Your task to perform on an android device: turn off improve location accuracy Image 0: 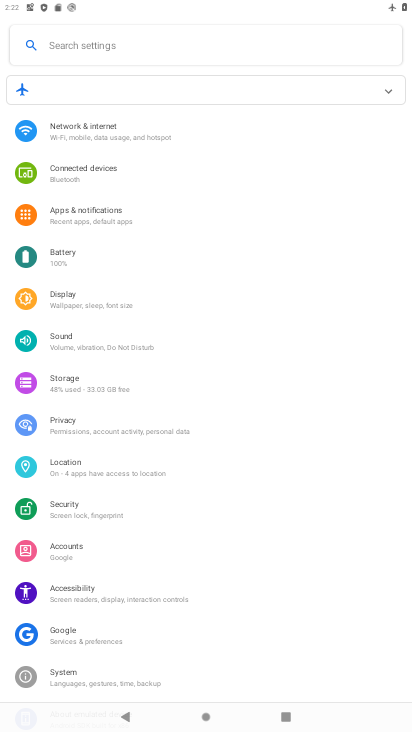
Step 0: click (98, 484)
Your task to perform on an android device: turn off improve location accuracy Image 1: 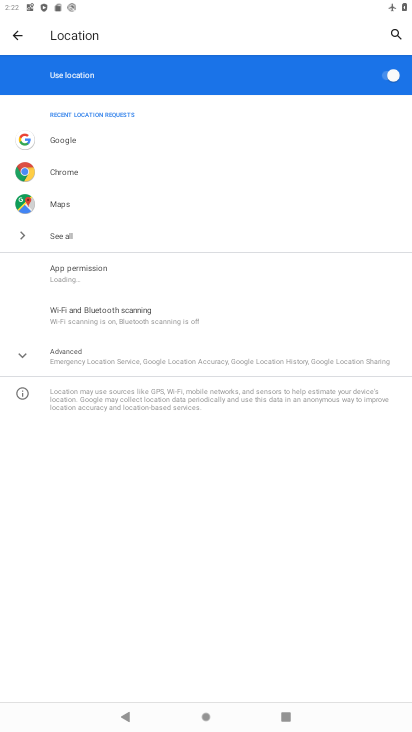
Step 1: click (98, 368)
Your task to perform on an android device: turn off improve location accuracy Image 2: 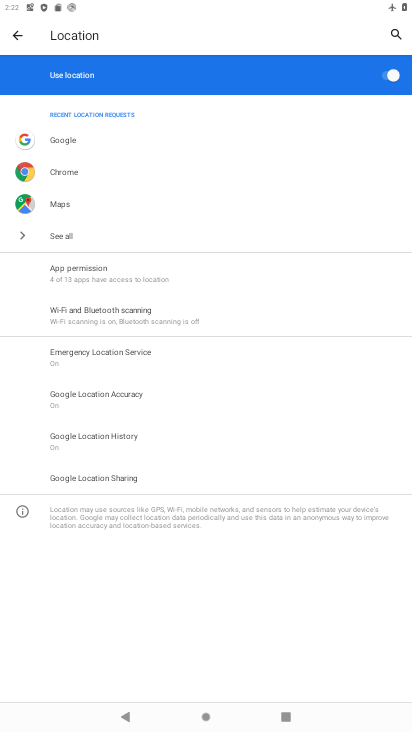
Step 2: click (102, 395)
Your task to perform on an android device: turn off improve location accuracy Image 3: 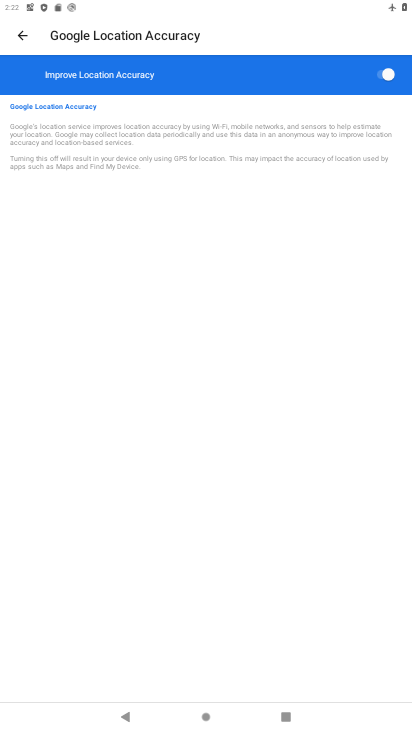
Step 3: click (384, 81)
Your task to perform on an android device: turn off improve location accuracy Image 4: 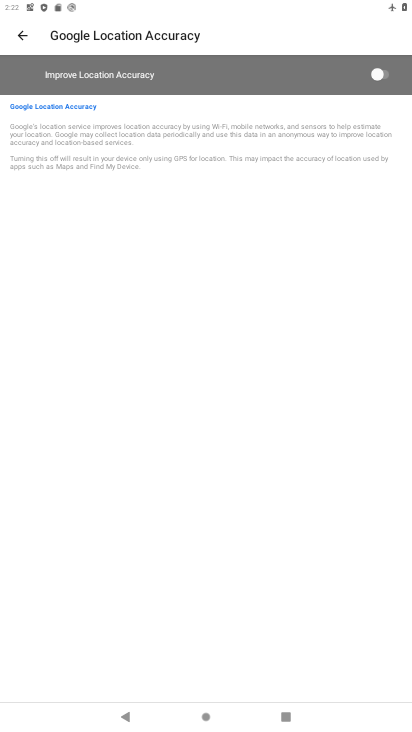
Step 4: task complete